Your task to perform on an android device: toggle location history Image 0: 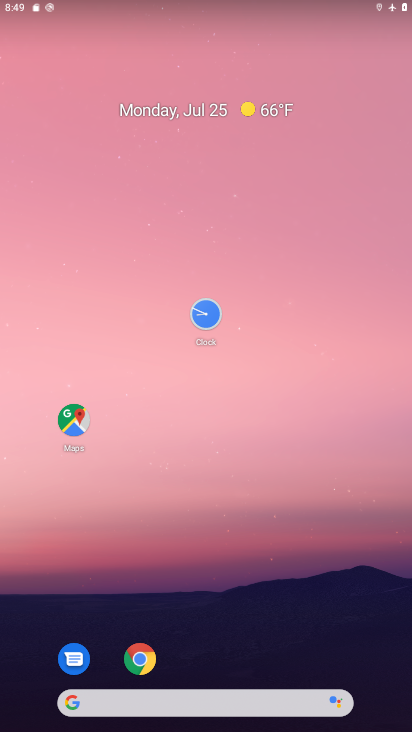
Step 0: drag from (319, 573) to (260, 129)
Your task to perform on an android device: toggle location history Image 1: 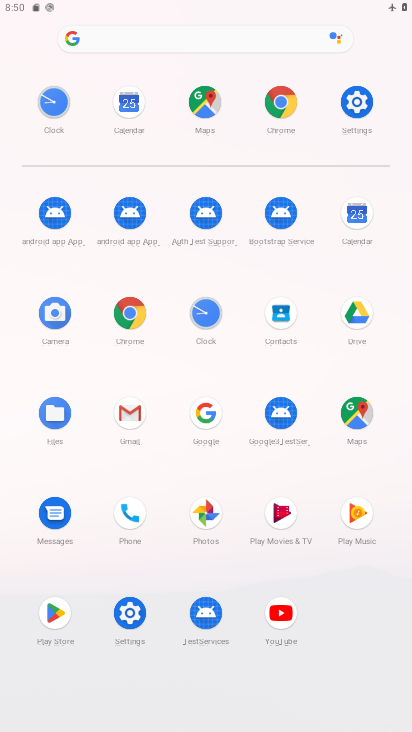
Step 1: click (369, 90)
Your task to perform on an android device: toggle location history Image 2: 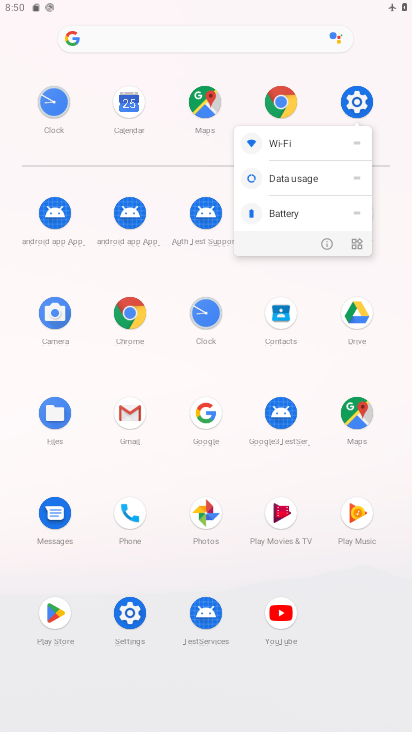
Step 2: click (361, 101)
Your task to perform on an android device: toggle location history Image 3: 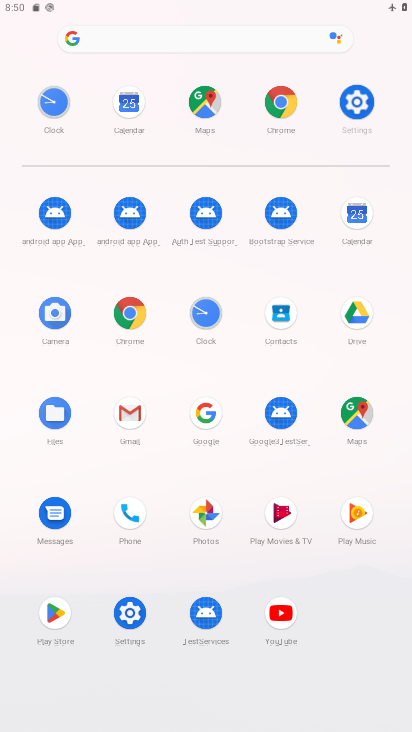
Step 3: click (361, 101)
Your task to perform on an android device: toggle location history Image 4: 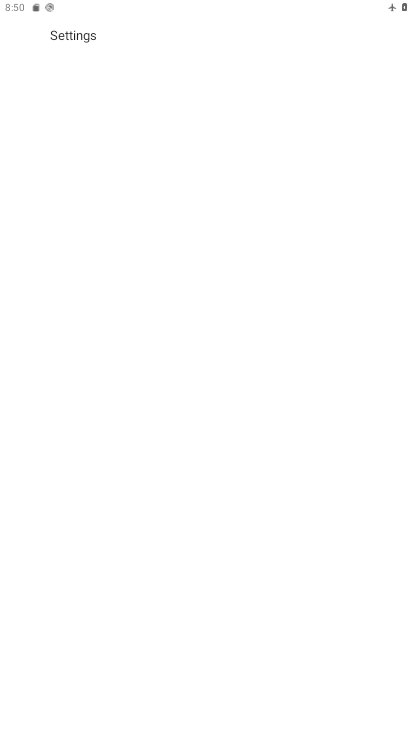
Step 4: click (364, 104)
Your task to perform on an android device: toggle location history Image 5: 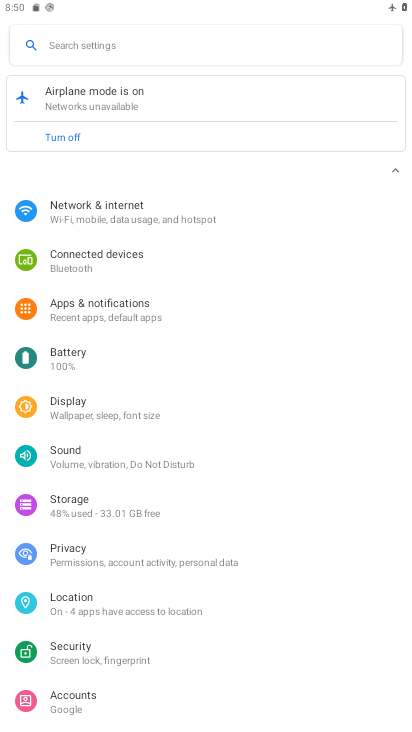
Step 5: click (83, 610)
Your task to perform on an android device: toggle location history Image 6: 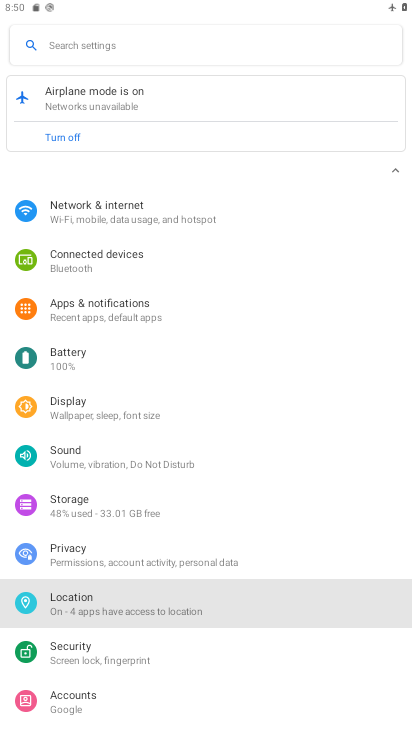
Step 6: click (82, 605)
Your task to perform on an android device: toggle location history Image 7: 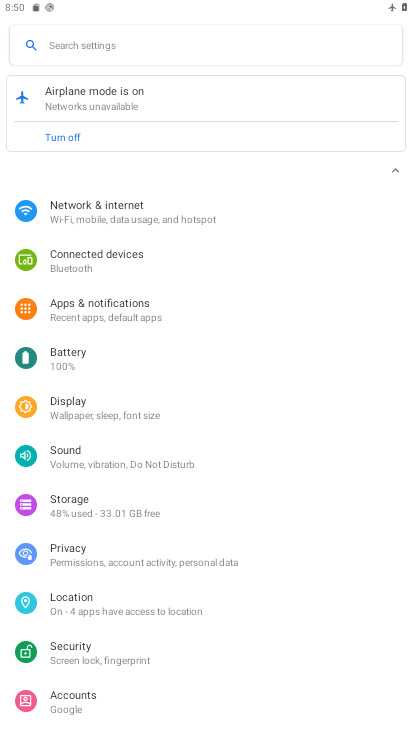
Step 7: click (83, 604)
Your task to perform on an android device: toggle location history Image 8: 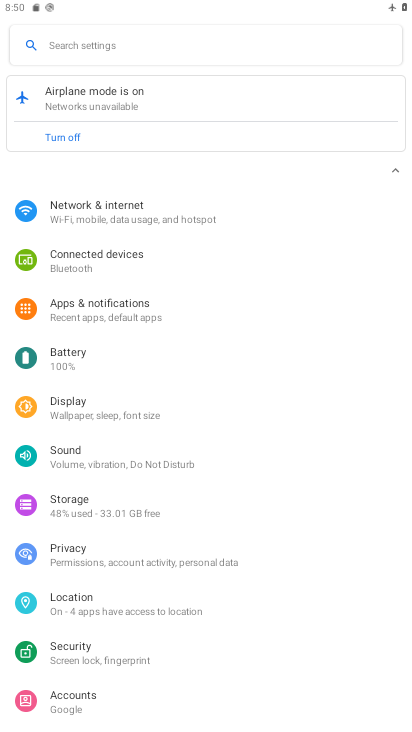
Step 8: click (83, 604)
Your task to perform on an android device: toggle location history Image 9: 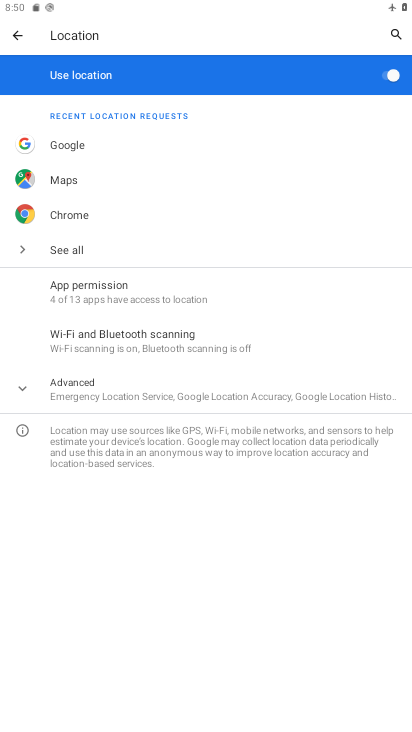
Step 9: click (73, 389)
Your task to perform on an android device: toggle location history Image 10: 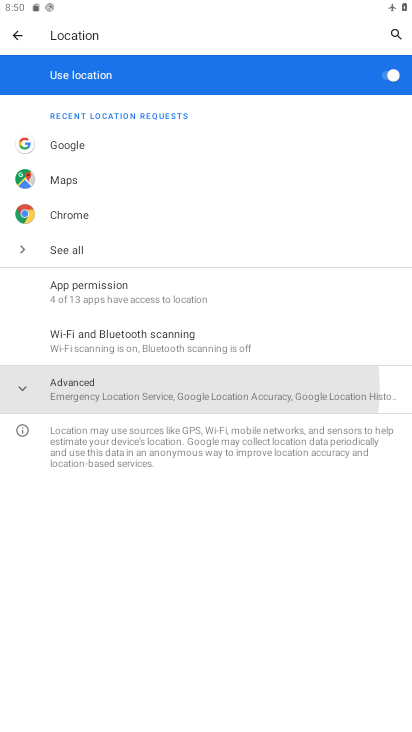
Step 10: click (73, 390)
Your task to perform on an android device: toggle location history Image 11: 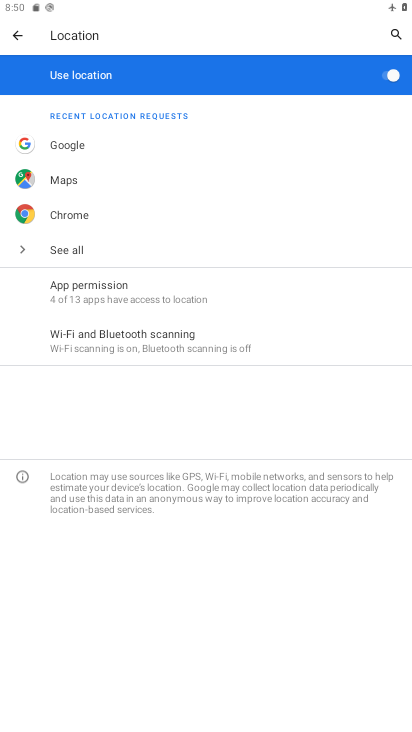
Step 11: click (72, 389)
Your task to perform on an android device: toggle location history Image 12: 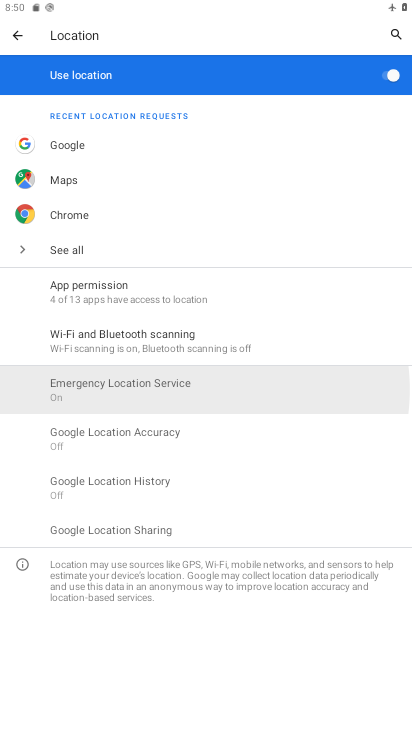
Step 12: click (72, 389)
Your task to perform on an android device: toggle location history Image 13: 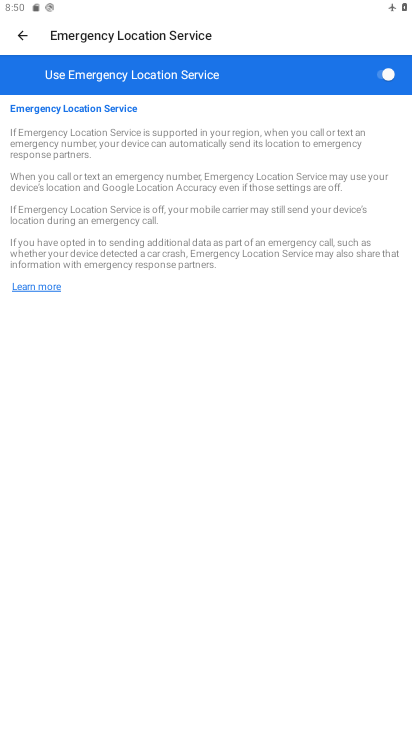
Step 13: click (19, 36)
Your task to perform on an android device: toggle location history Image 14: 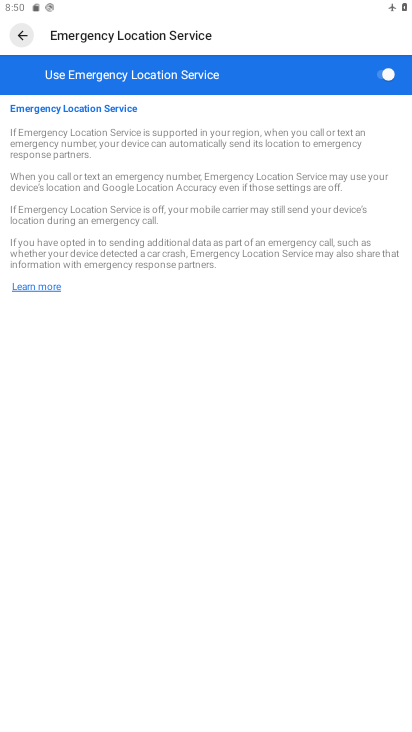
Step 14: click (21, 34)
Your task to perform on an android device: toggle location history Image 15: 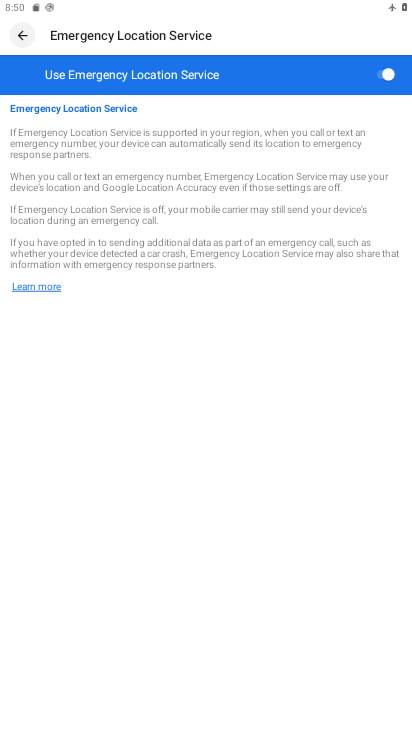
Step 15: click (23, 33)
Your task to perform on an android device: toggle location history Image 16: 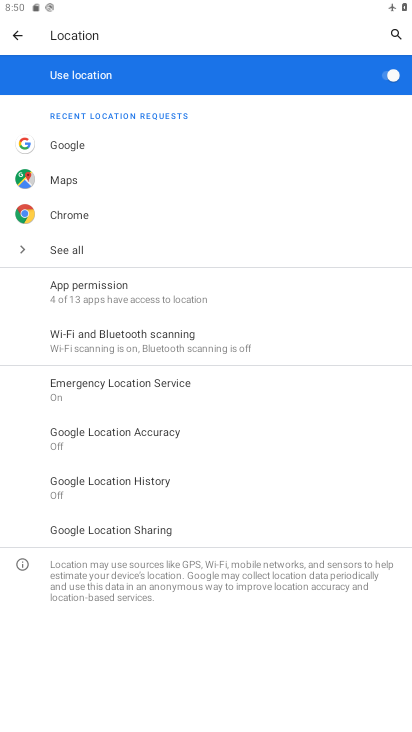
Step 16: click (132, 482)
Your task to perform on an android device: toggle location history Image 17: 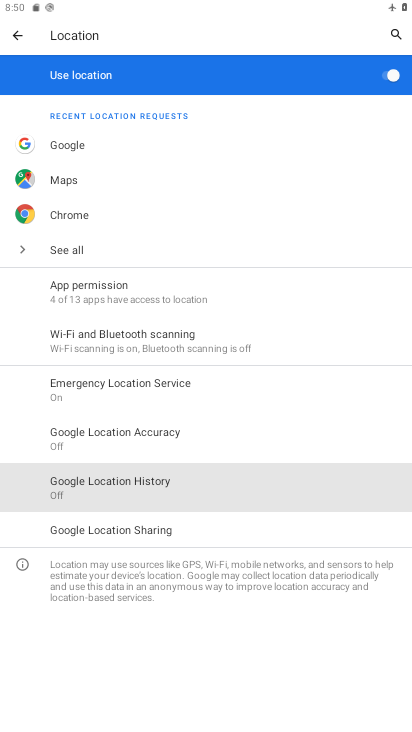
Step 17: click (129, 479)
Your task to perform on an android device: toggle location history Image 18: 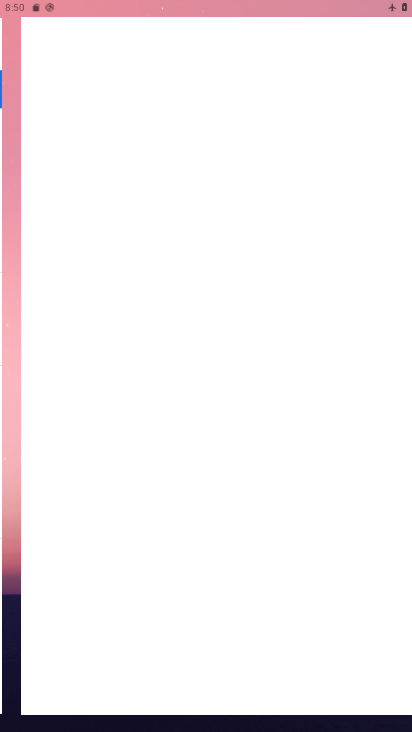
Step 18: click (132, 479)
Your task to perform on an android device: toggle location history Image 19: 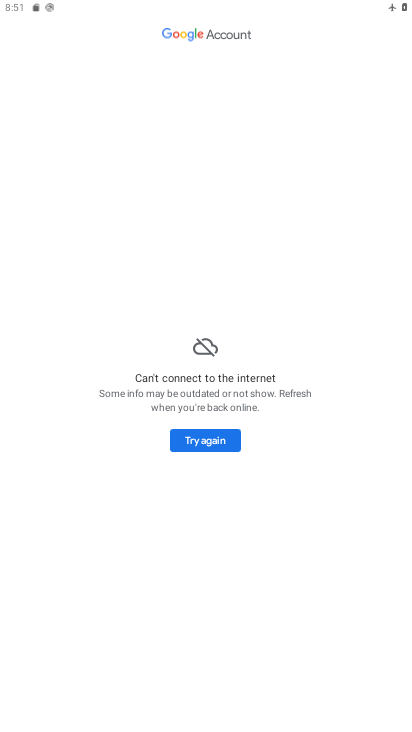
Step 19: task complete